Your task to perform on an android device: open a new tab in the chrome app Image 0: 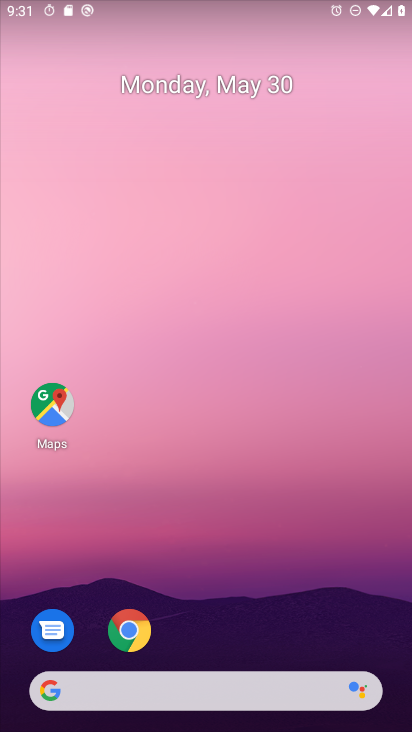
Step 0: drag from (358, 621) to (328, 44)
Your task to perform on an android device: open a new tab in the chrome app Image 1: 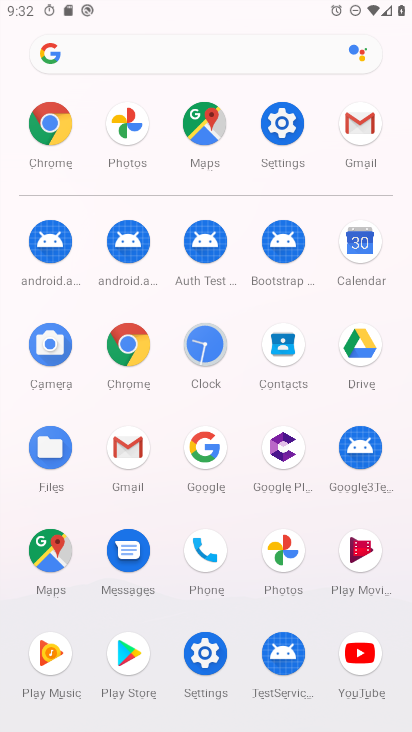
Step 1: click (124, 366)
Your task to perform on an android device: open a new tab in the chrome app Image 2: 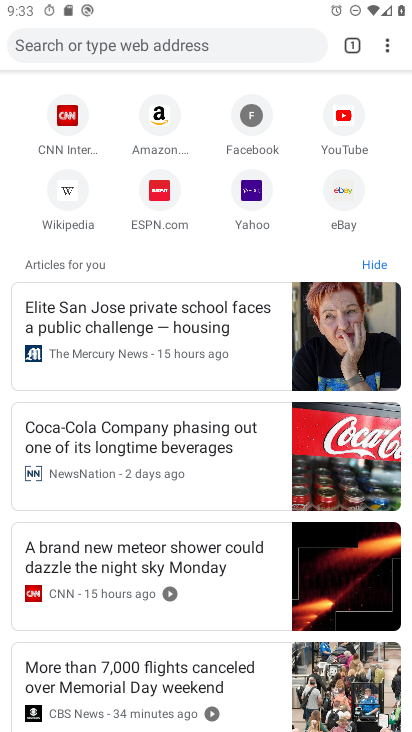
Step 2: click (392, 43)
Your task to perform on an android device: open a new tab in the chrome app Image 3: 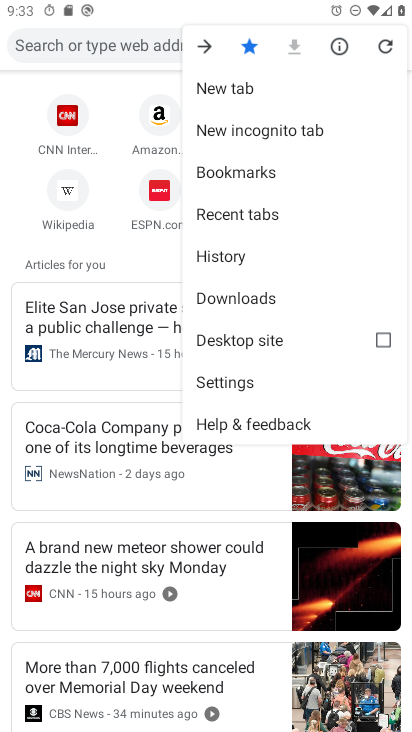
Step 3: click (272, 102)
Your task to perform on an android device: open a new tab in the chrome app Image 4: 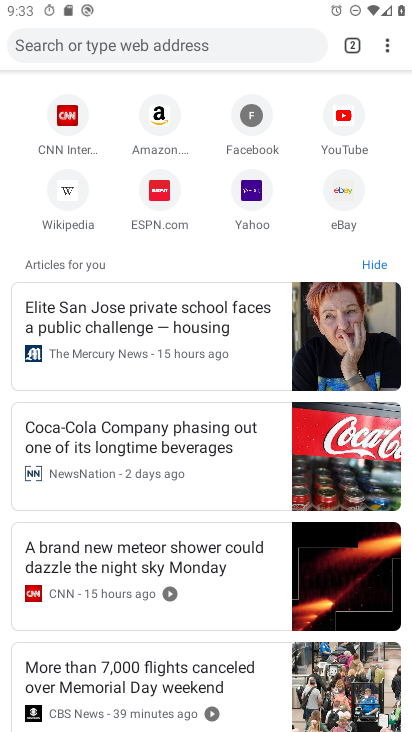
Step 4: task complete